Your task to perform on an android device: Clear the cart on target.com. Image 0: 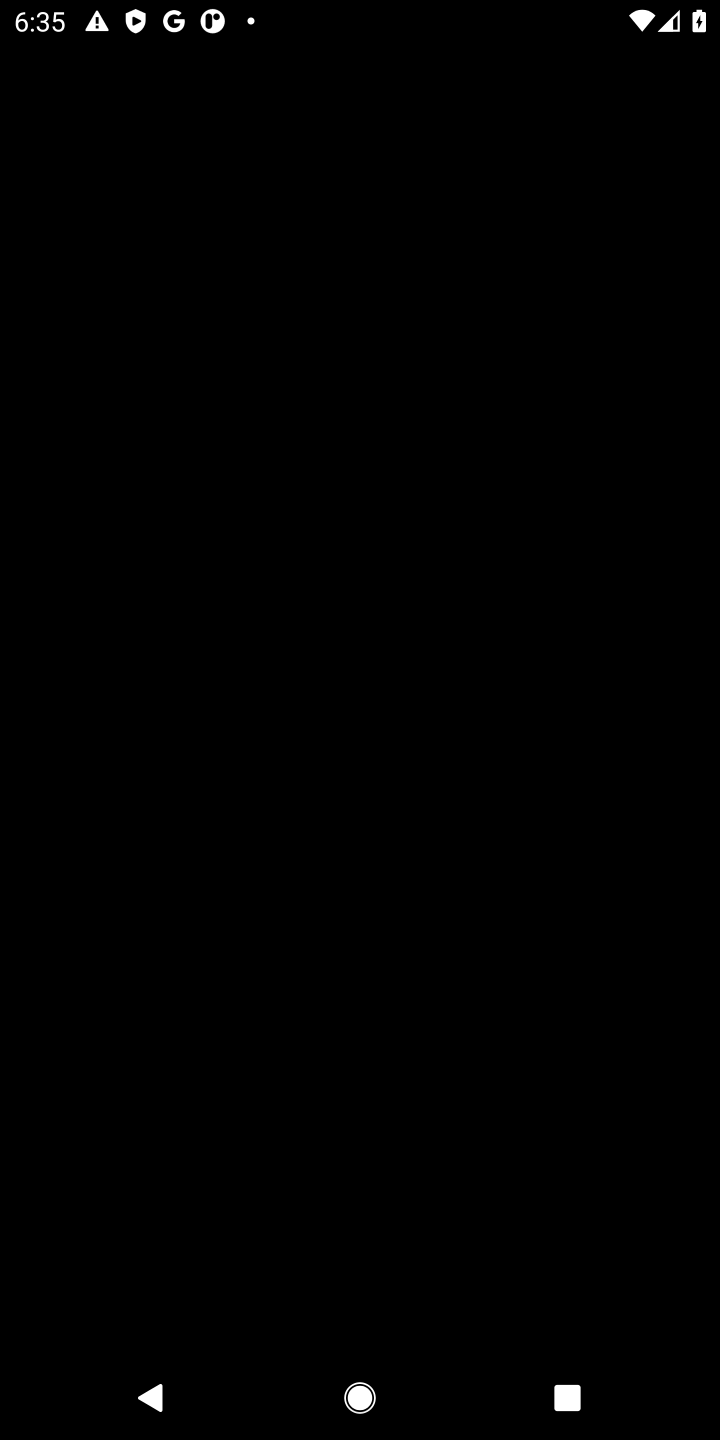
Step 0: press home button
Your task to perform on an android device: Clear the cart on target.com. Image 1: 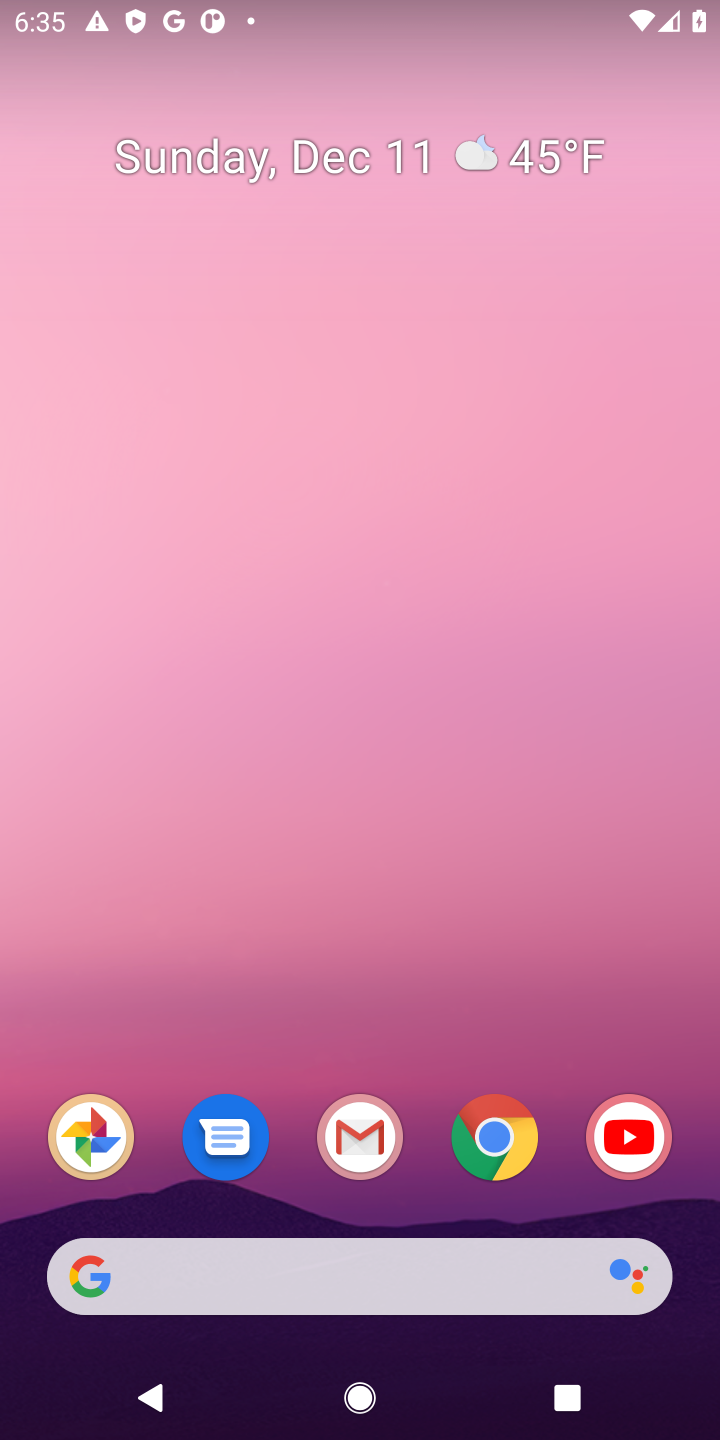
Step 1: click (527, 1113)
Your task to perform on an android device: Clear the cart on target.com. Image 2: 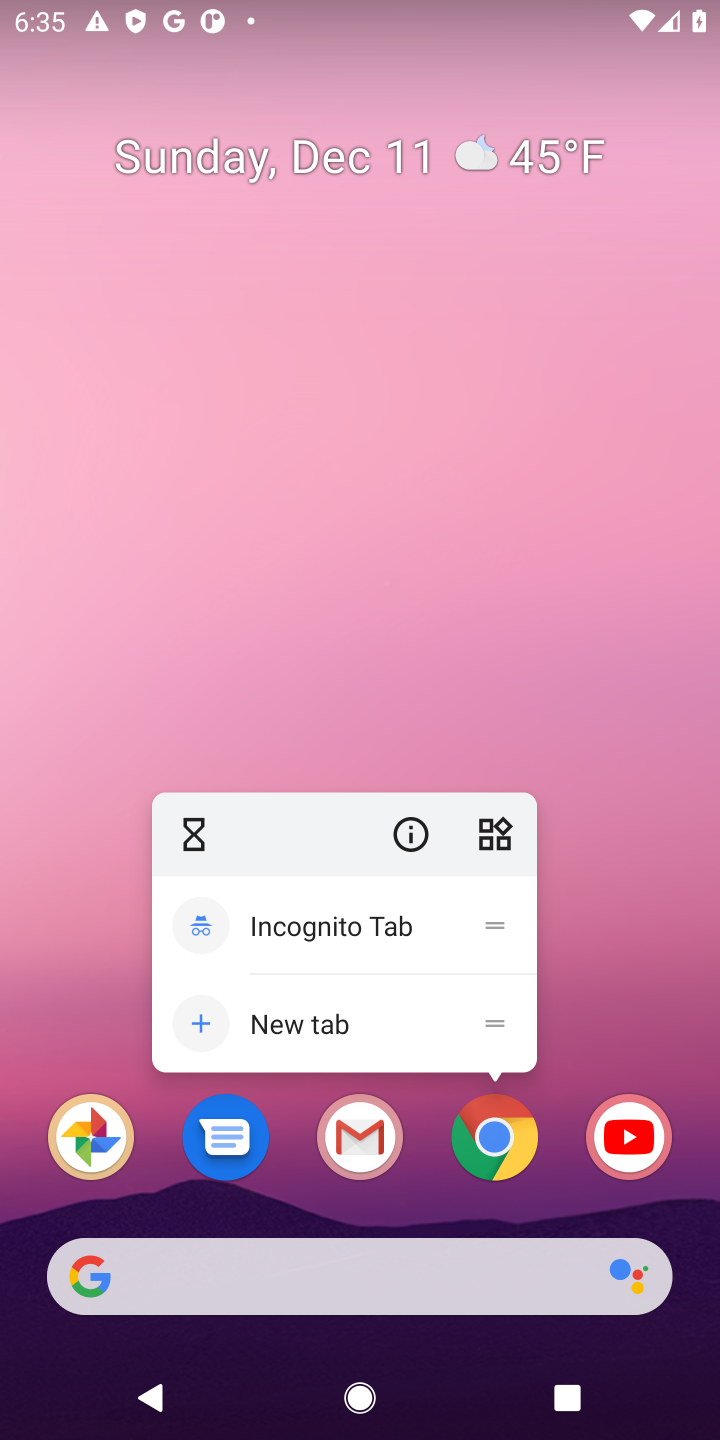
Step 2: click (507, 1136)
Your task to perform on an android device: Clear the cart on target.com. Image 3: 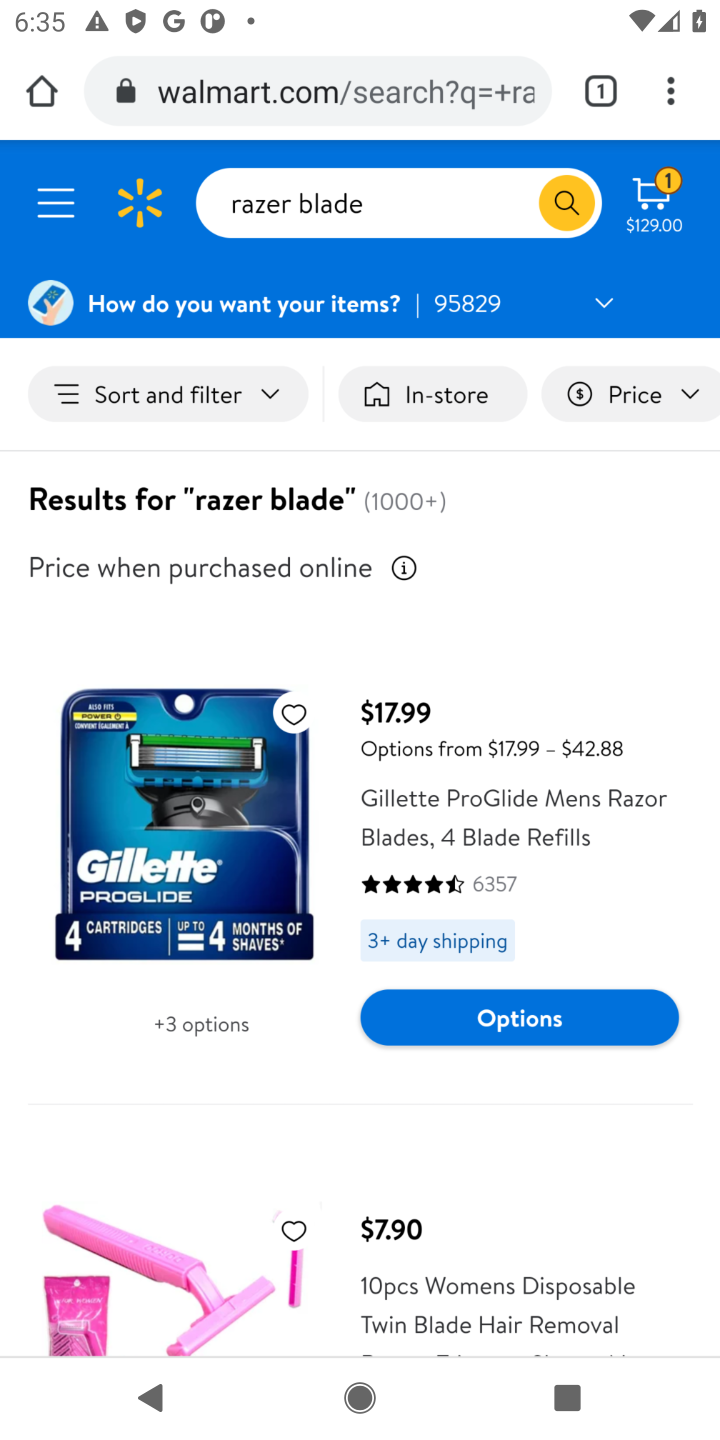
Step 3: click (507, 1136)
Your task to perform on an android device: Clear the cart on target.com. Image 4: 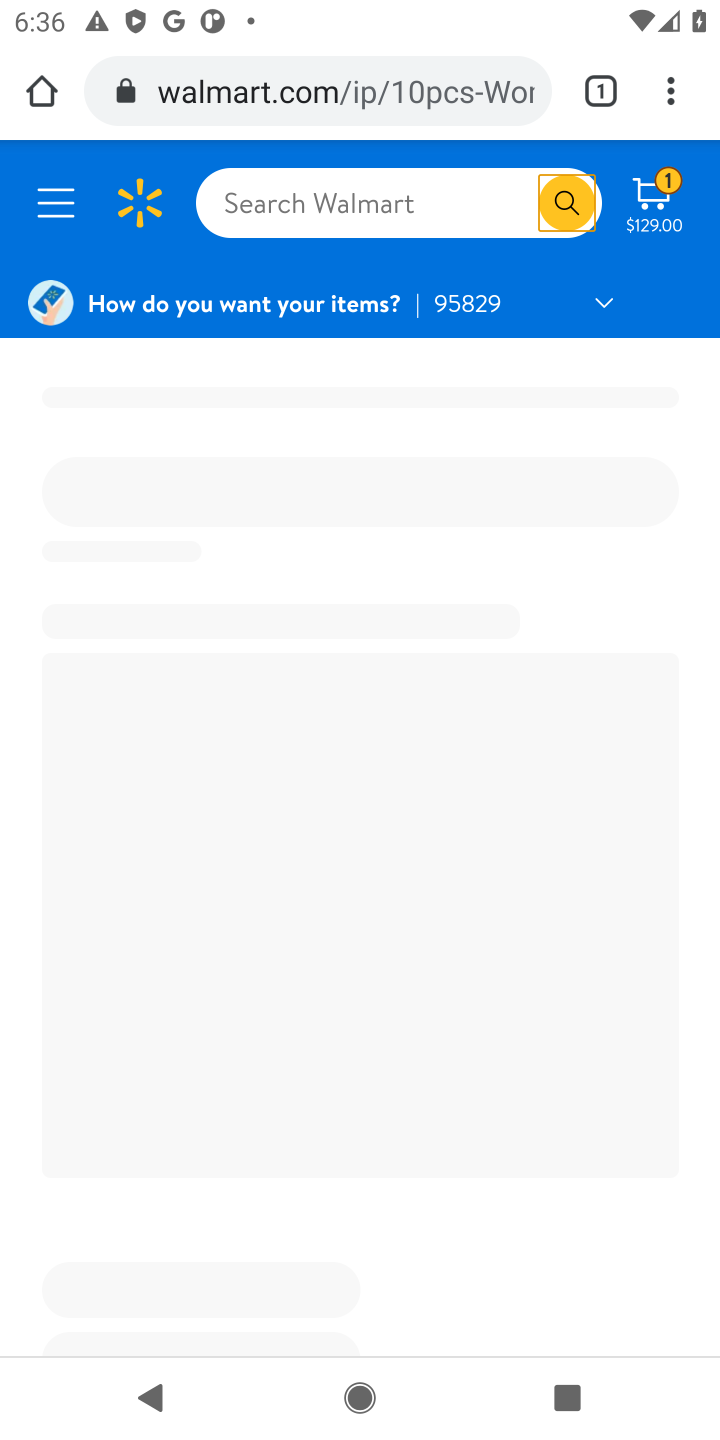
Step 4: click (399, 98)
Your task to perform on an android device: Clear the cart on target.com. Image 5: 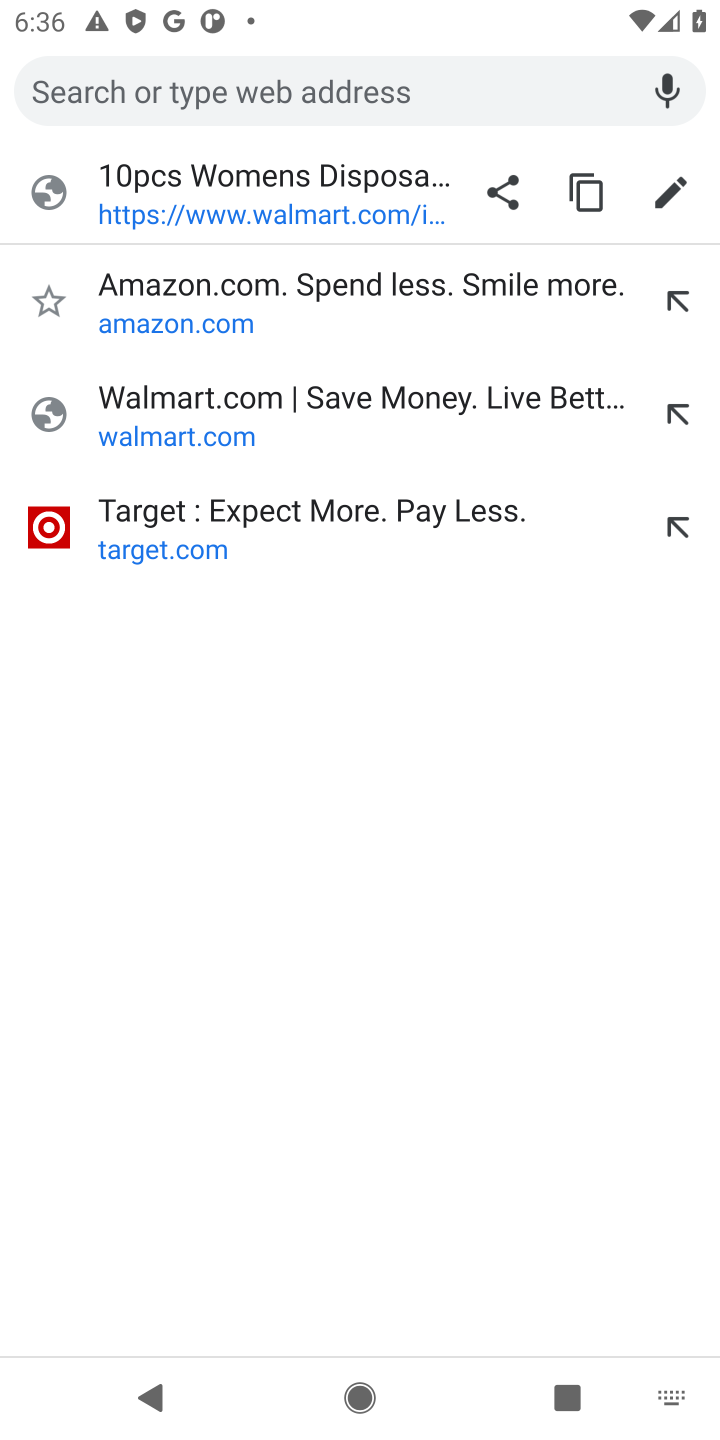
Step 5: click (399, 98)
Your task to perform on an android device: Clear the cart on target.com. Image 6: 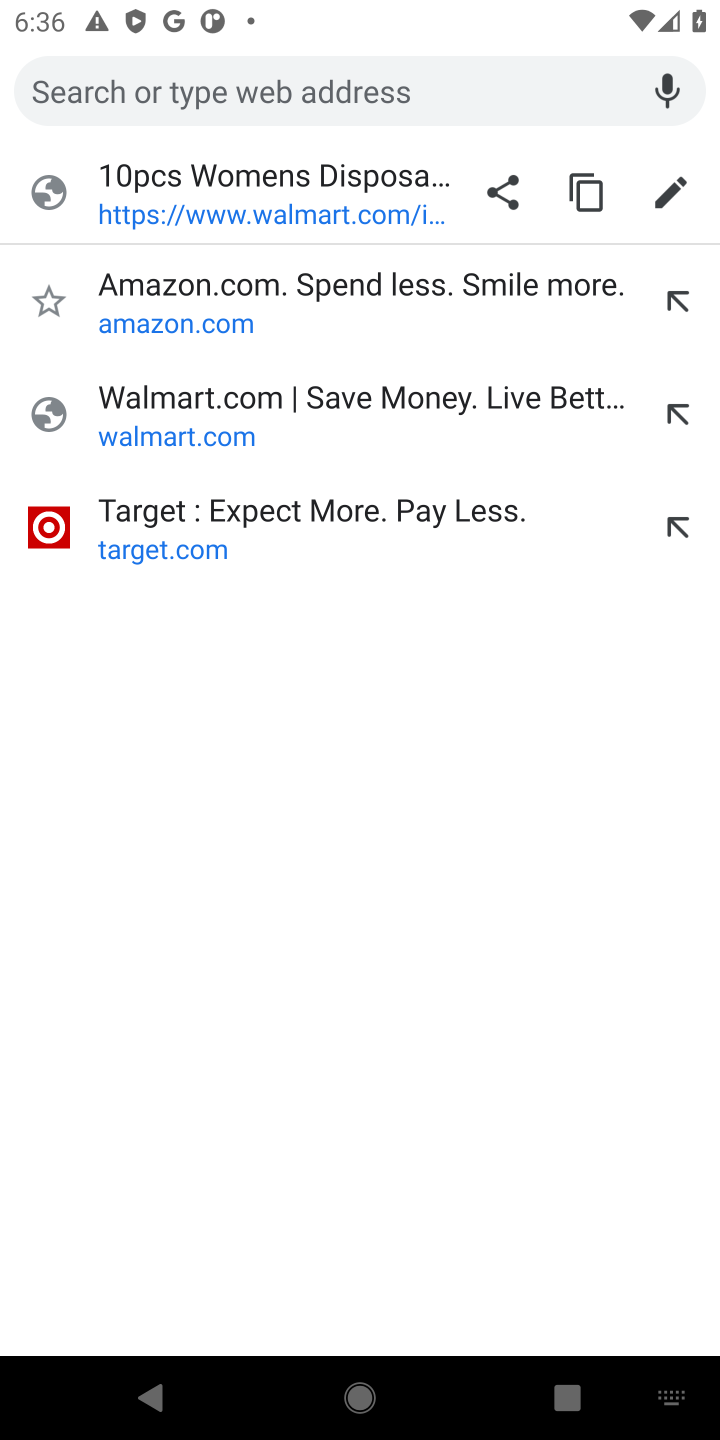
Step 6: click (132, 538)
Your task to perform on an android device: Clear the cart on target.com. Image 7: 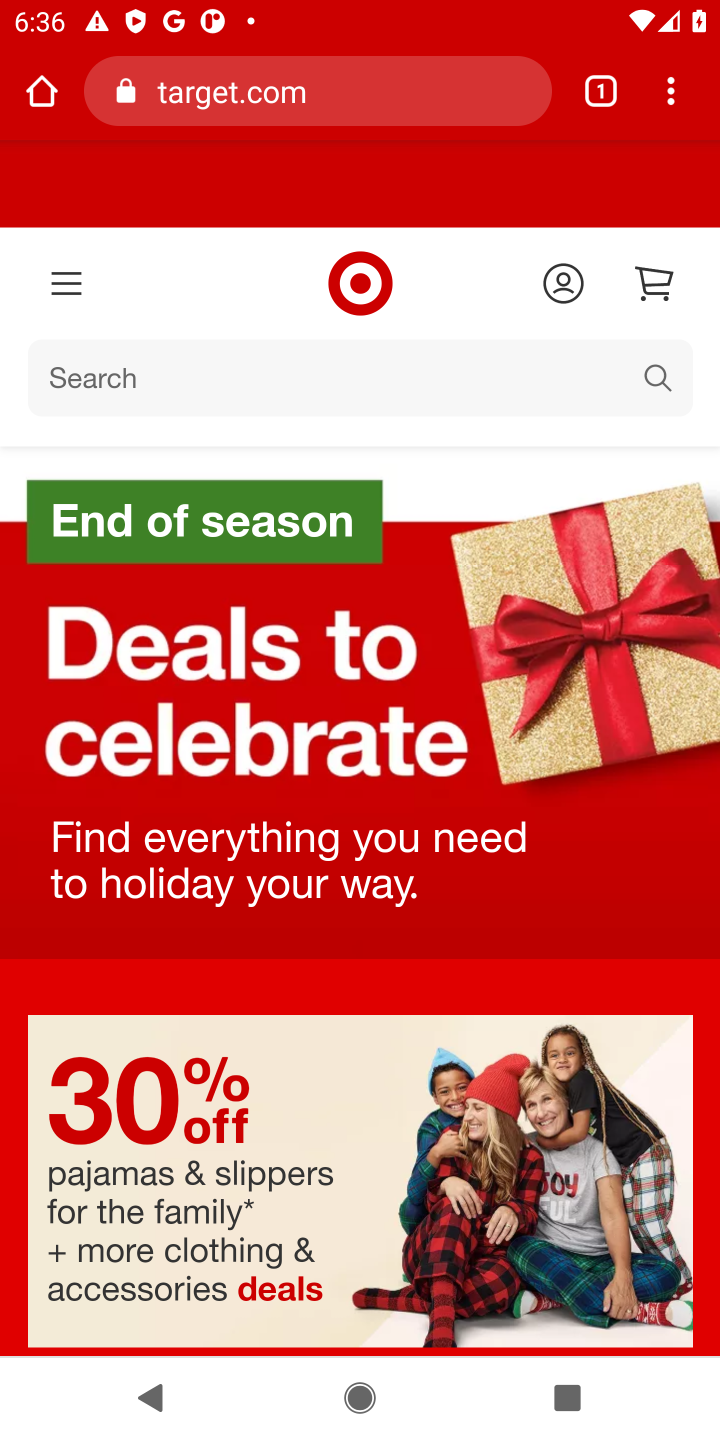
Step 7: click (642, 270)
Your task to perform on an android device: Clear the cart on target.com. Image 8: 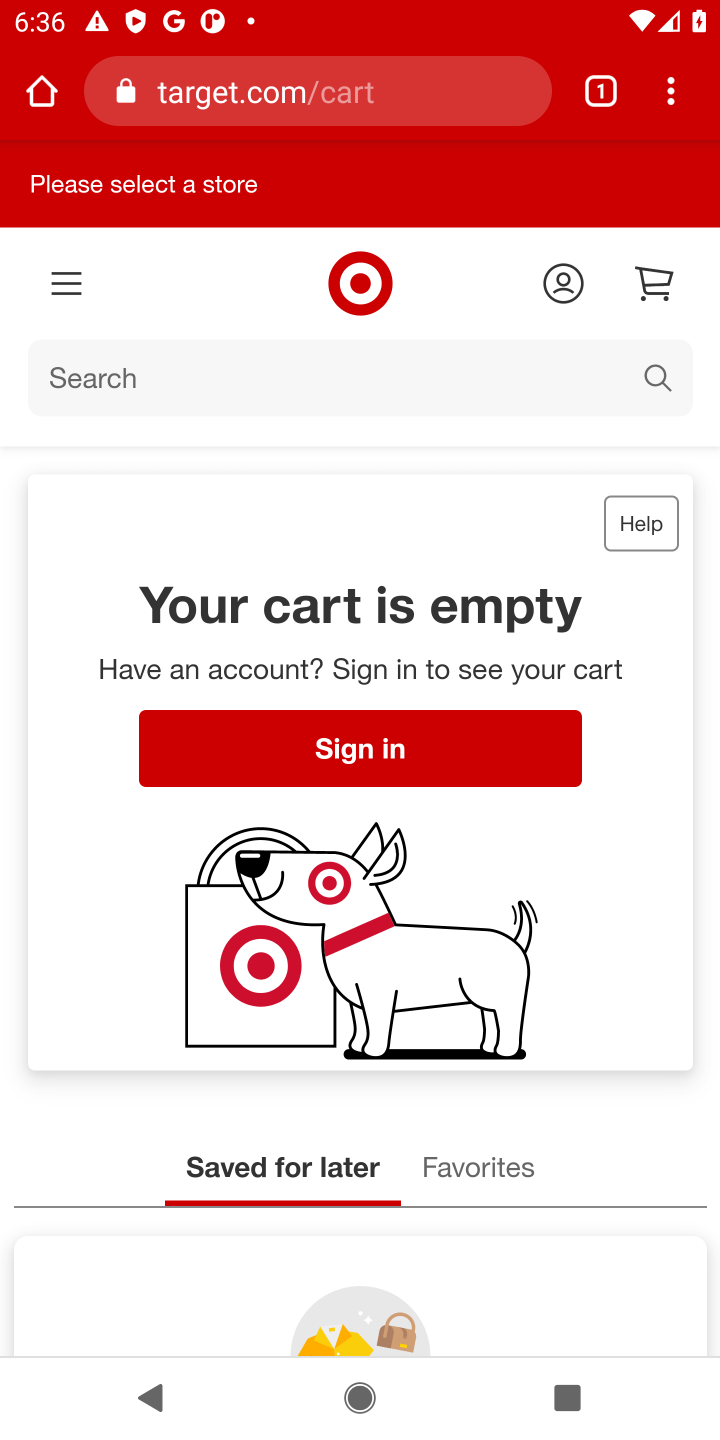
Step 8: task complete